Your task to perform on an android device: set the stopwatch Image 0: 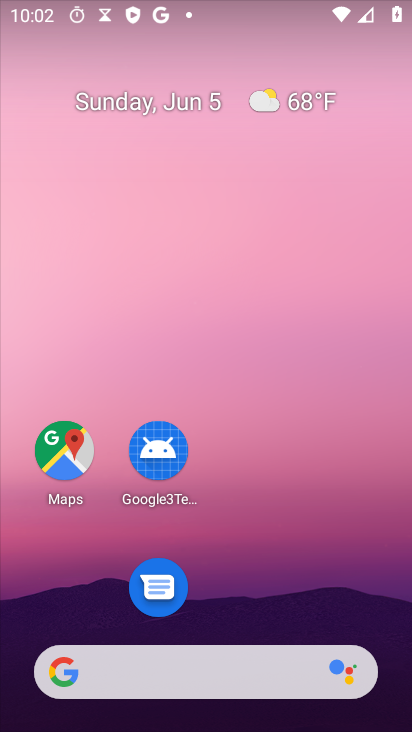
Step 0: drag from (279, 568) to (194, 41)
Your task to perform on an android device: set the stopwatch Image 1: 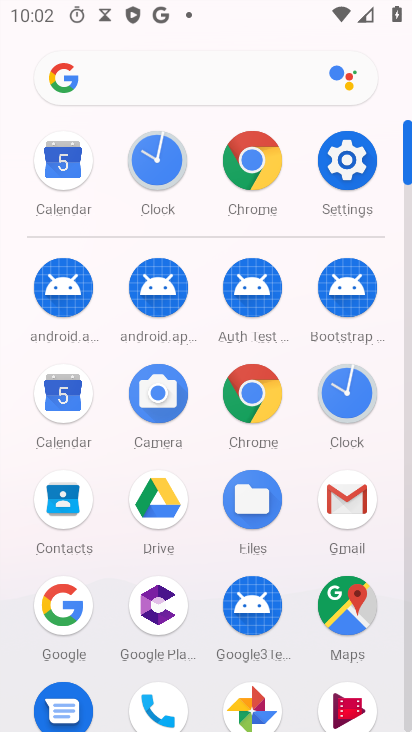
Step 1: click (260, 488)
Your task to perform on an android device: set the stopwatch Image 2: 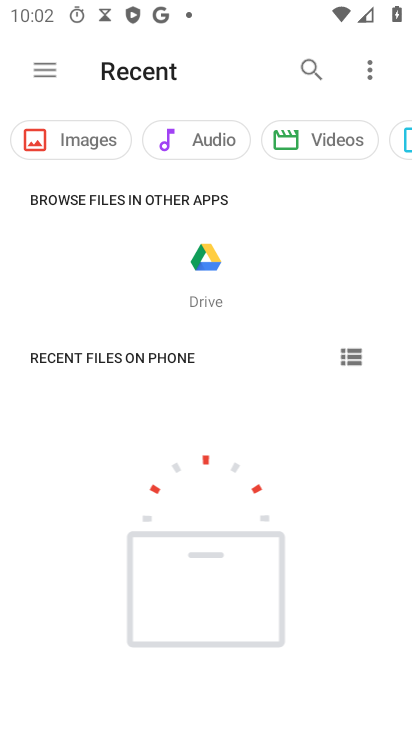
Step 2: press back button
Your task to perform on an android device: set the stopwatch Image 3: 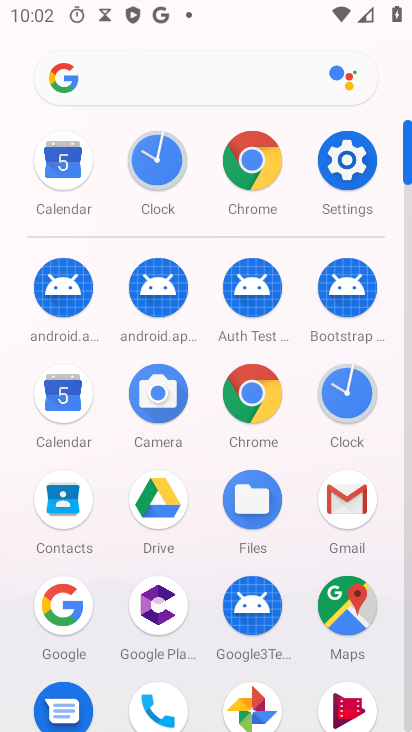
Step 3: click (353, 402)
Your task to perform on an android device: set the stopwatch Image 4: 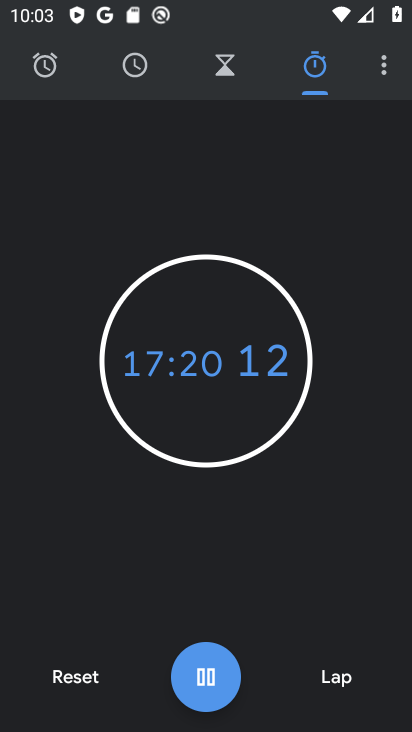
Step 4: task complete